Your task to perform on an android device: turn smart compose on in the gmail app Image 0: 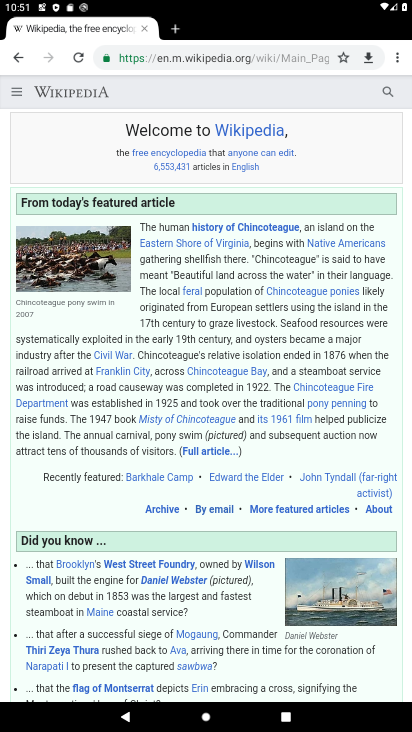
Step 0: press back button
Your task to perform on an android device: turn smart compose on in the gmail app Image 1: 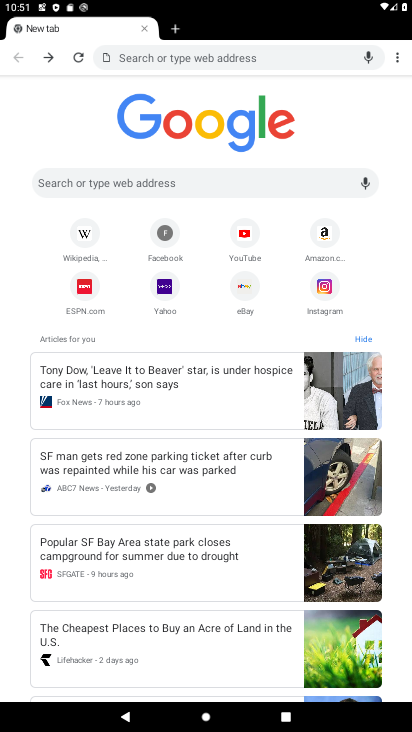
Step 1: press back button
Your task to perform on an android device: turn smart compose on in the gmail app Image 2: 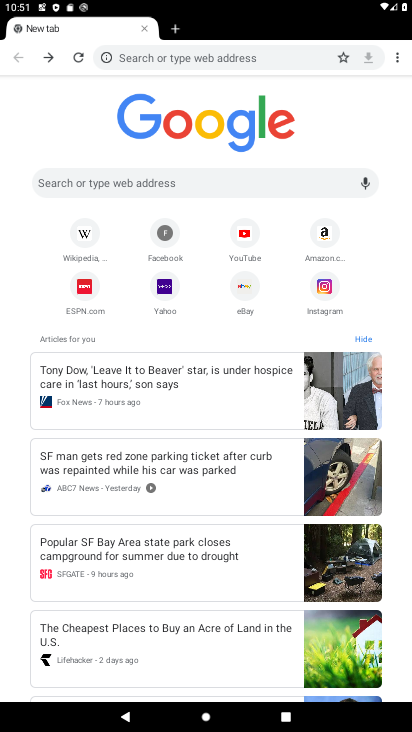
Step 2: press home button
Your task to perform on an android device: turn smart compose on in the gmail app Image 3: 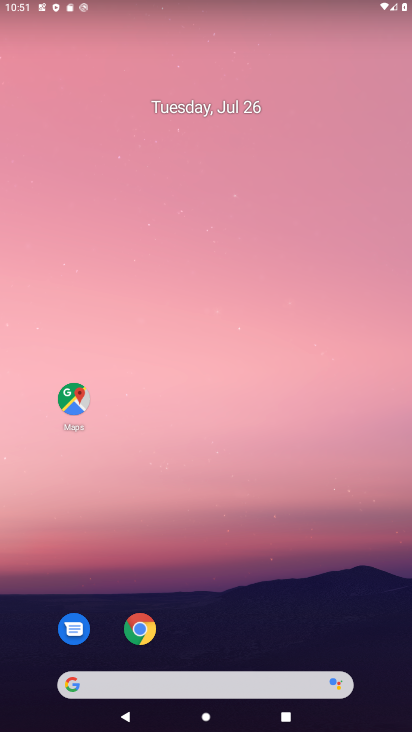
Step 3: drag from (184, 616) to (199, 169)
Your task to perform on an android device: turn smart compose on in the gmail app Image 4: 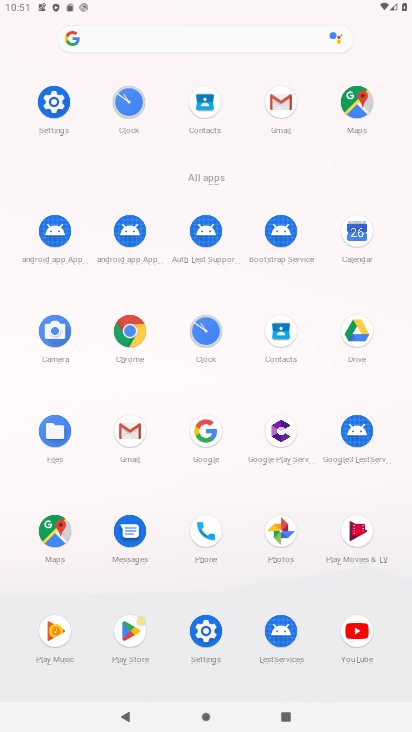
Step 4: click (281, 108)
Your task to perform on an android device: turn smart compose on in the gmail app Image 5: 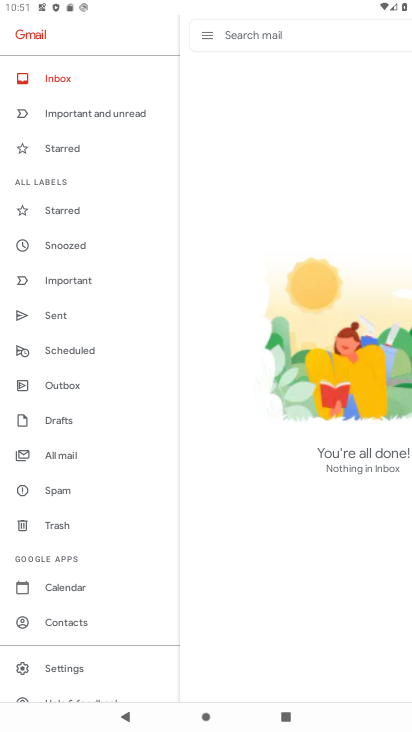
Step 5: click (58, 669)
Your task to perform on an android device: turn smart compose on in the gmail app Image 6: 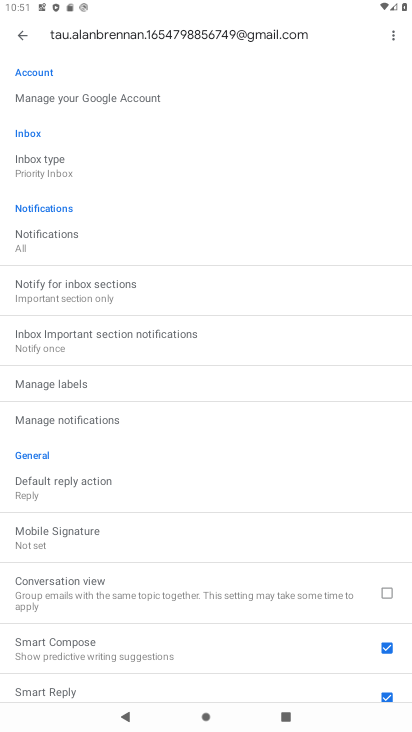
Step 6: task complete